Your task to perform on an android device: change your default location settings in chrome Image 0: 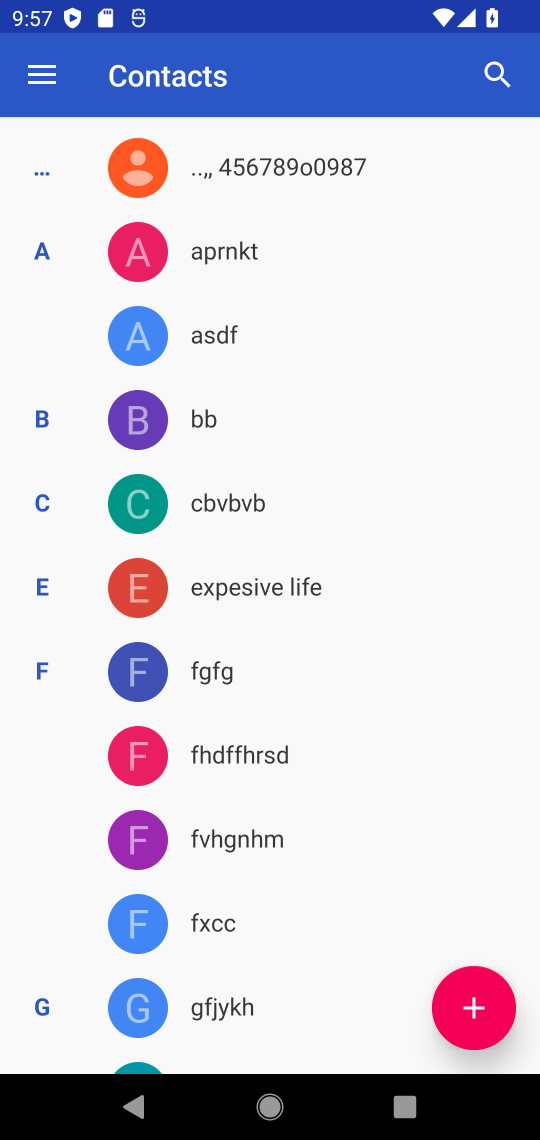
Step 0: press back button
Your task to perform on an android device: change your default location settings in chrome Image 1: 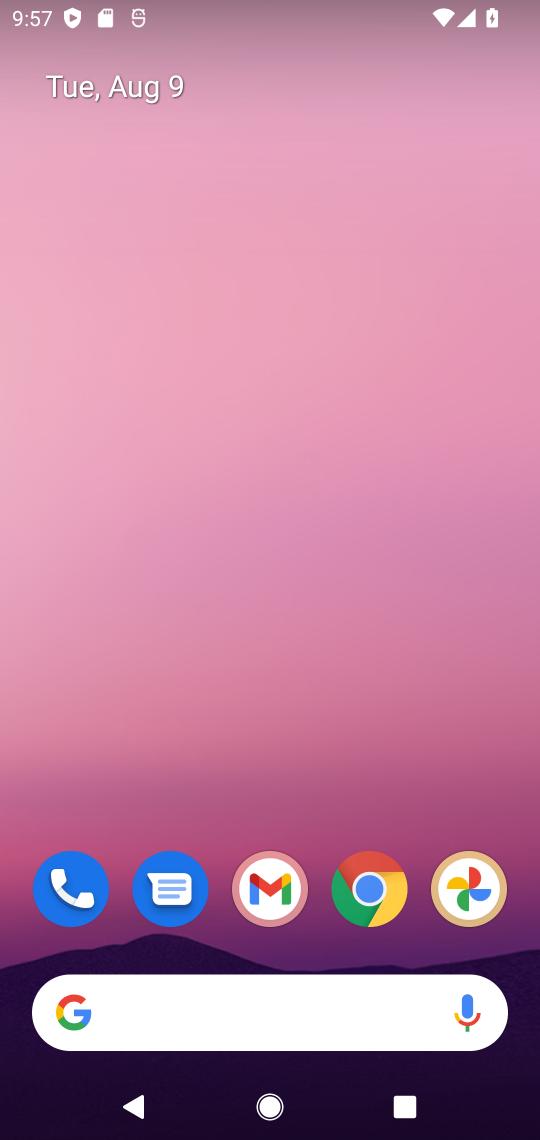
Step 1: click (366, 900)
Your task to perform on an android device: change your default location settings in chrome Image 2: 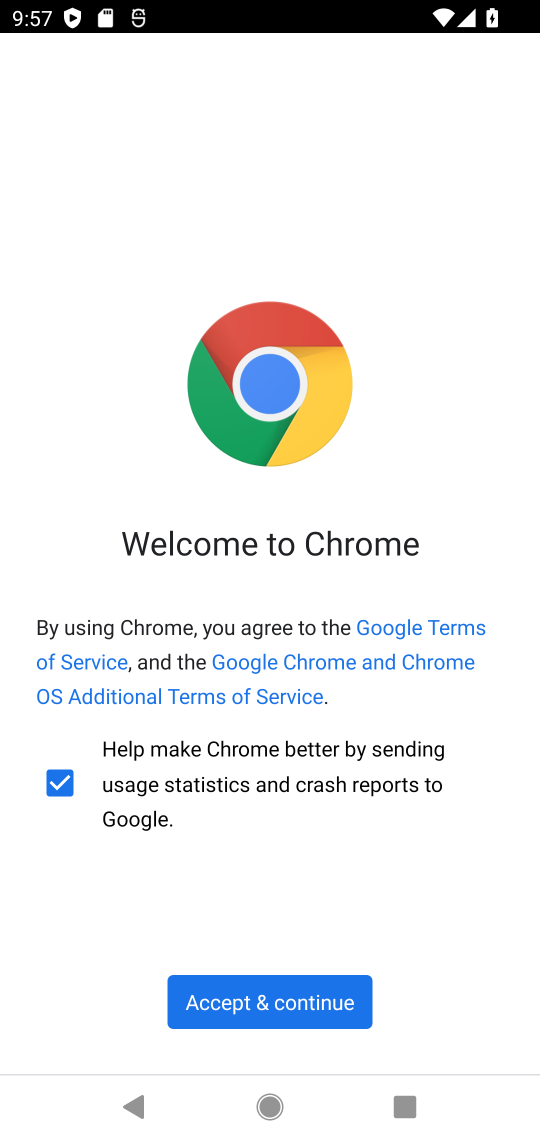
Step 2: click (218, 1032)
Your task to perform on an android device: change your default location settings in chrome Image 3: 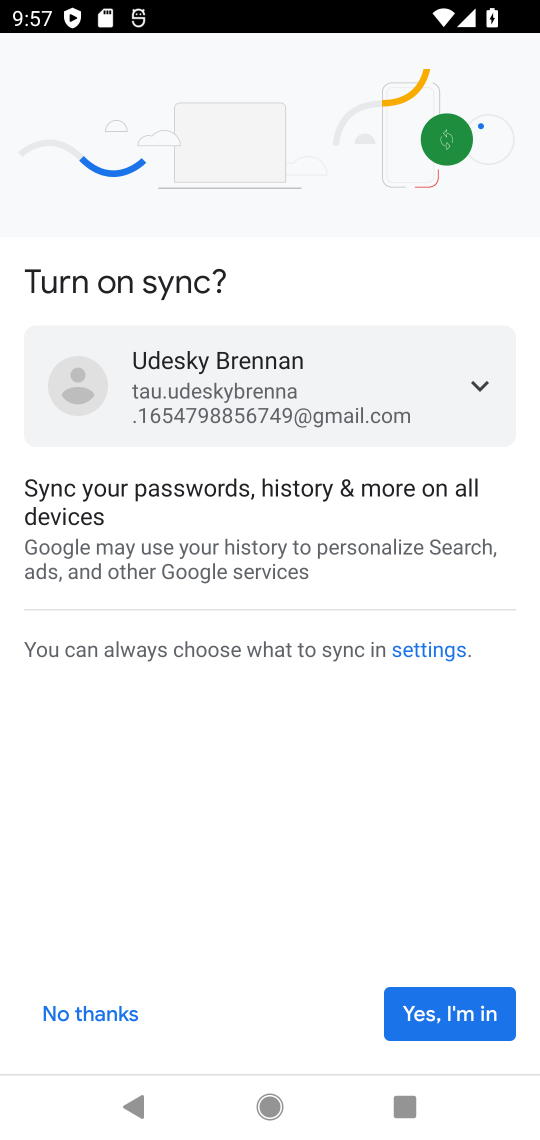
Step 3: click (488, 1028)
Your task to perform on an android device: change your default location settings in chrome Image 4: 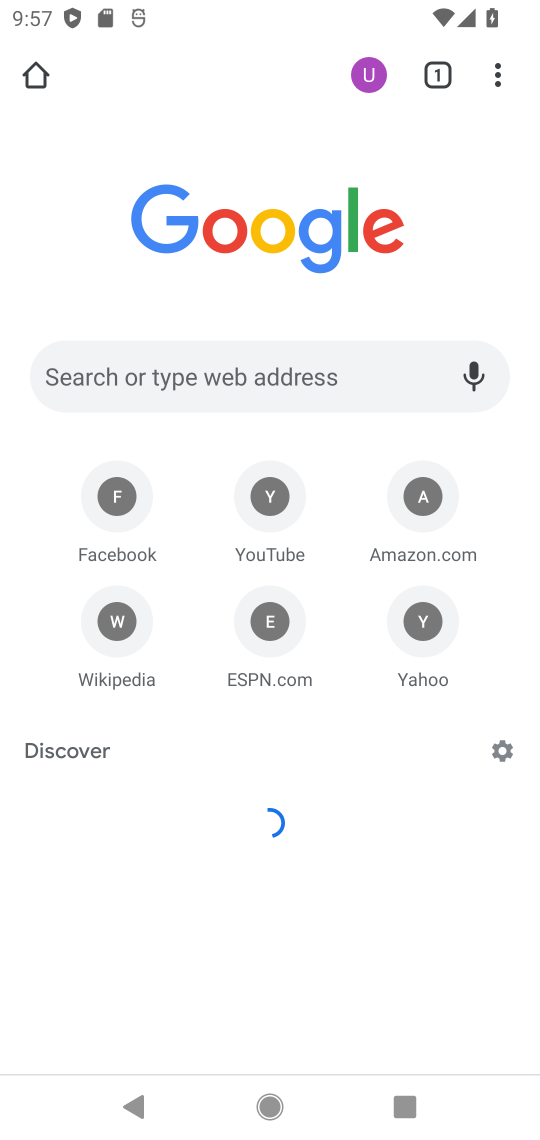
Step 4: click (488, 1028)
Your task to perform on an android device: change your default location settings in chrome Image 5: 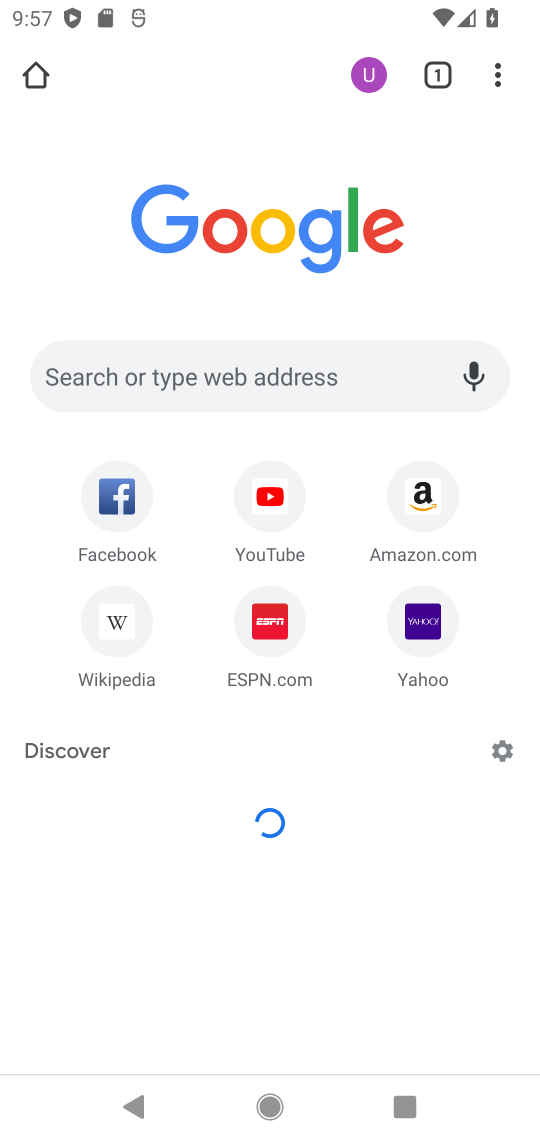
Step 5: drag from (492, 77) to (204, 714)
Your task to perform on an android device: change your default location settings in chrome Image 6: 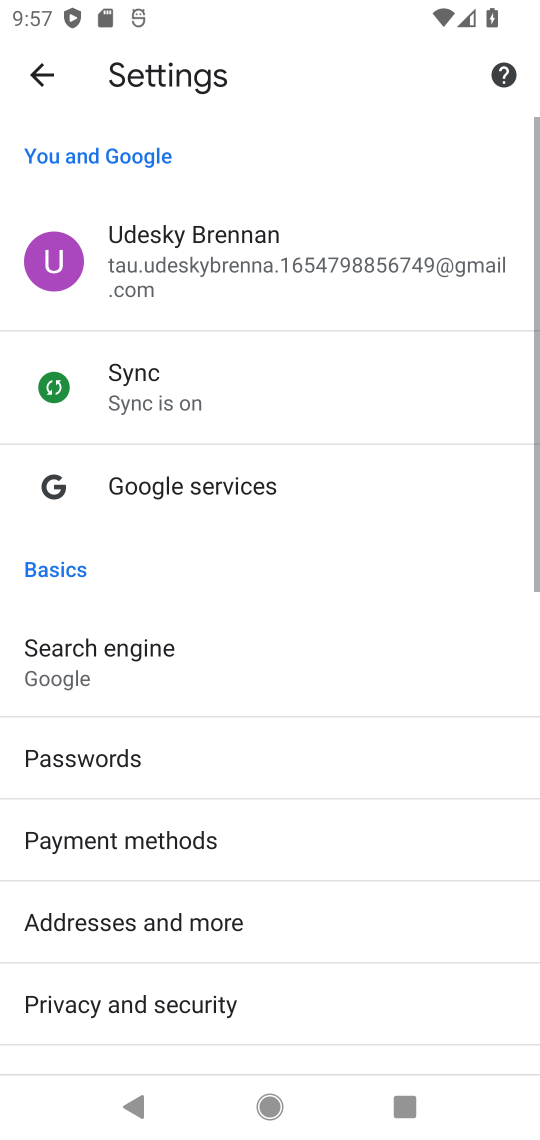
Step 6: drag from (159, 1026) to (407, 204)
Your task to perform on an android device: change your default location settings in chrome Image 7: 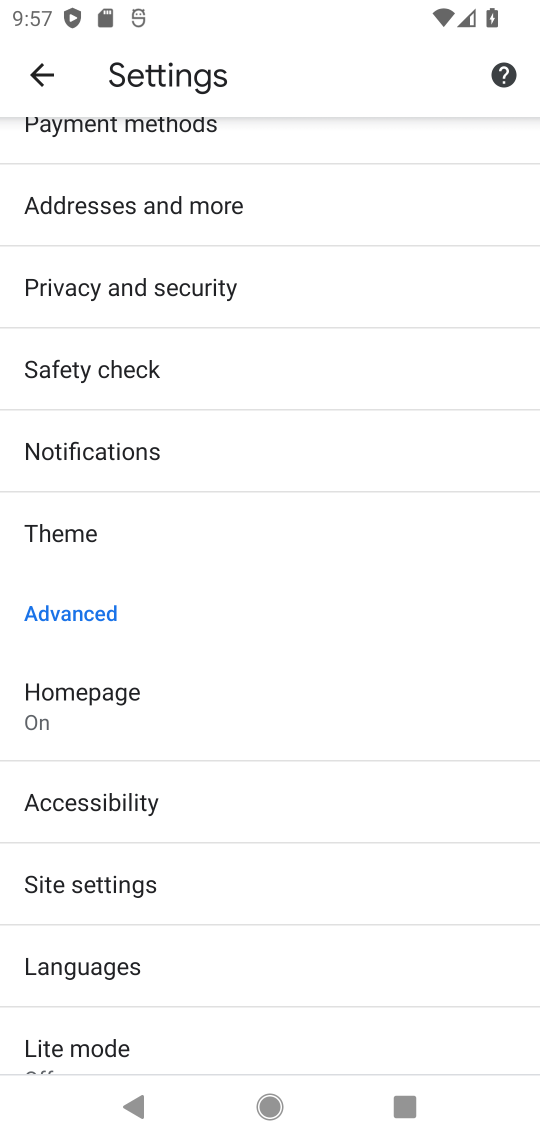
Step 7: click (119, 896)
Your task to perform on an android device: change your default location settings in chrome Image 8: 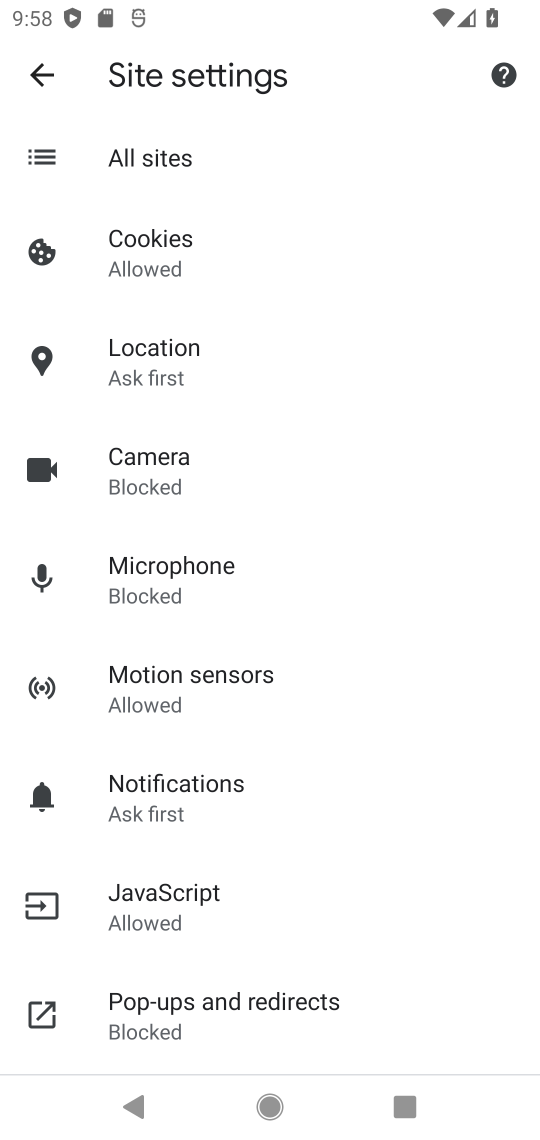
Step 8: click (144, 347)
Your task to perform on an android device: change your default location settings in chrome Image 9: 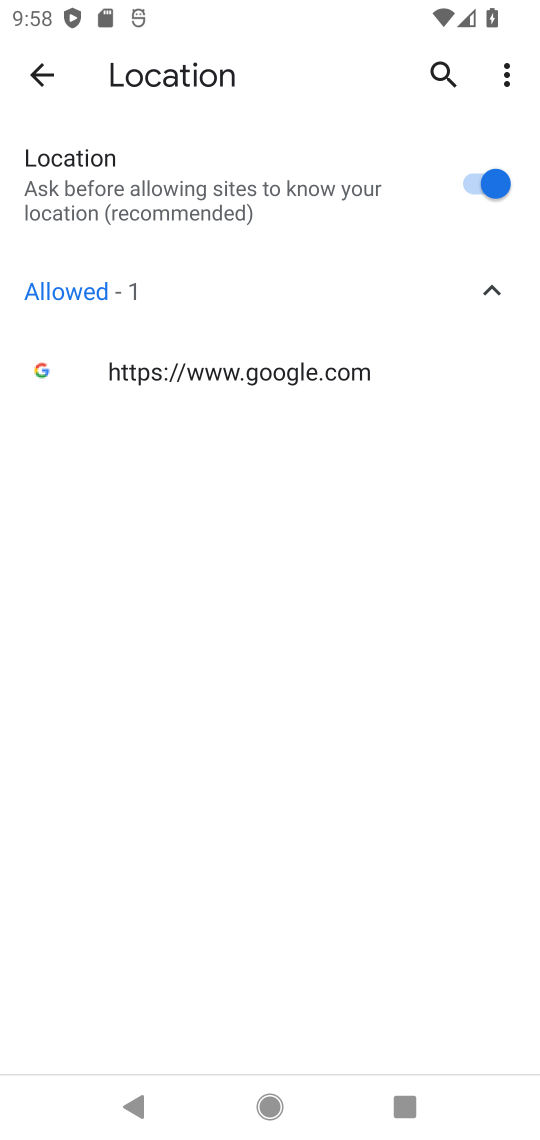
Step 9: click (493, 180)
Your task to perform on an android device: change your default location settings in chrome Image 10: 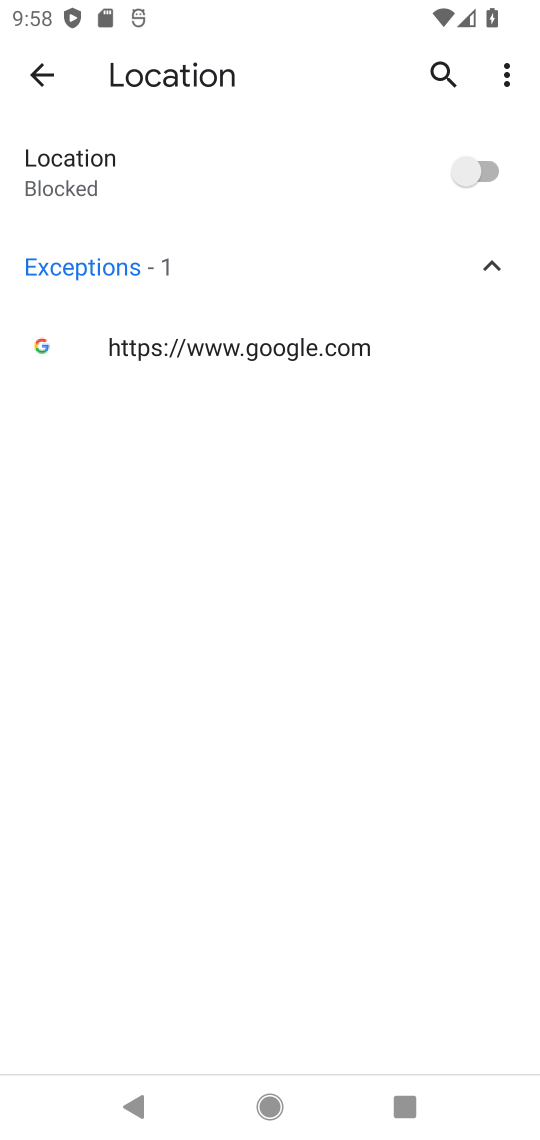
Step 10: task complete